Your task to perform on an android device: Open Yahoo.com Image 0: 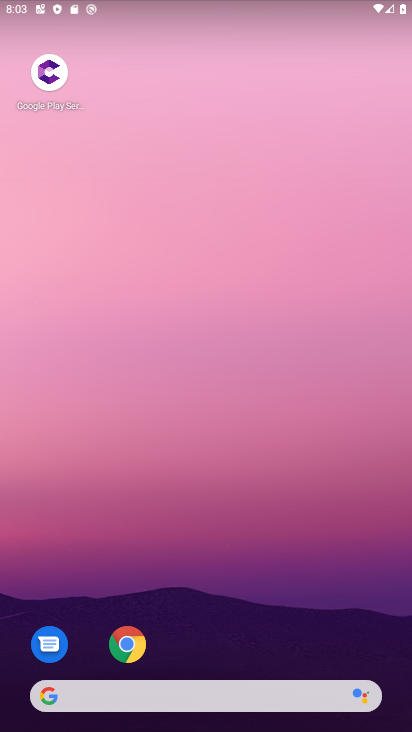
Step 0: drag from (227, 498) to (357, 80)
Your task to perform on an android device: Open Yahoo.com Image 1: 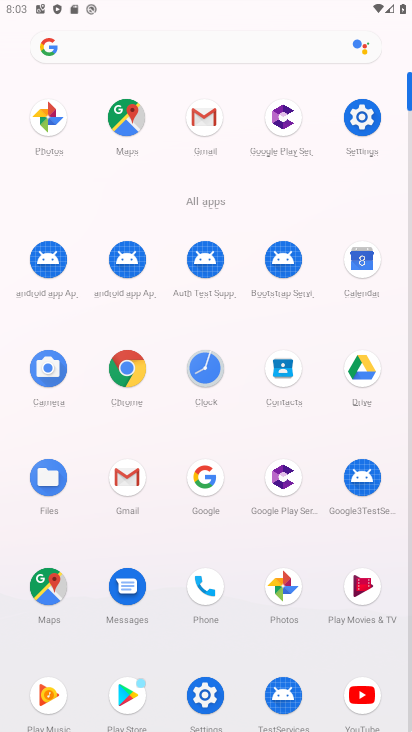
Step 1: click (116, 363)
Your task to perform on an android device: Open Yahoo.com Image 2: 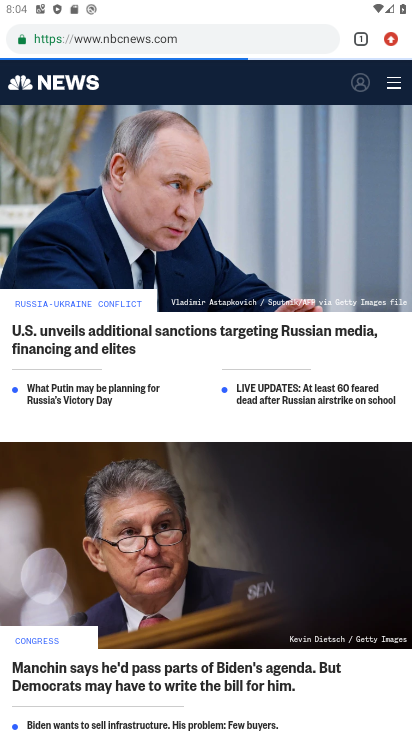
Step 2: click (131, 32)
Your task to perform on an android device: Open Yahoo.com Image 3: 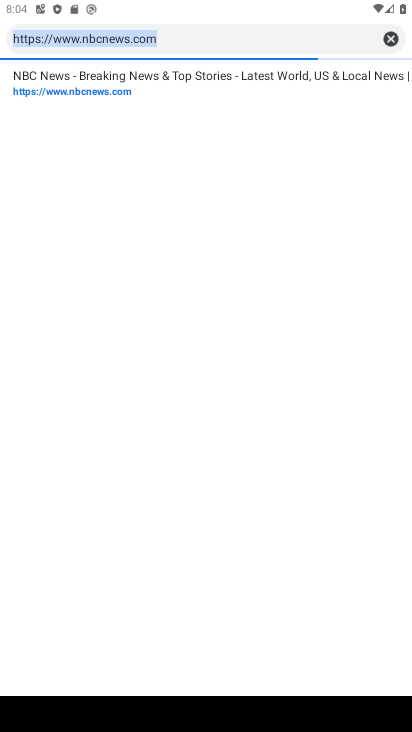
Step 3: click (383, 41)
Your task to perform on an android device: Open Yahoo.com Image 4: 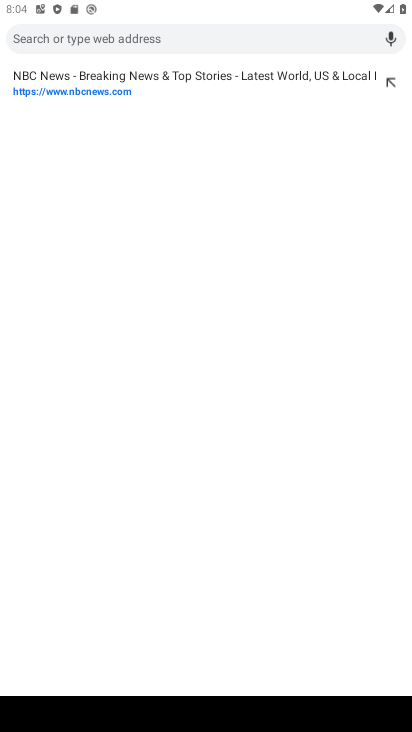
Step 4: type "yahoo.com"
Your task to perform on an android device: Open Yahoo.com Image 5: 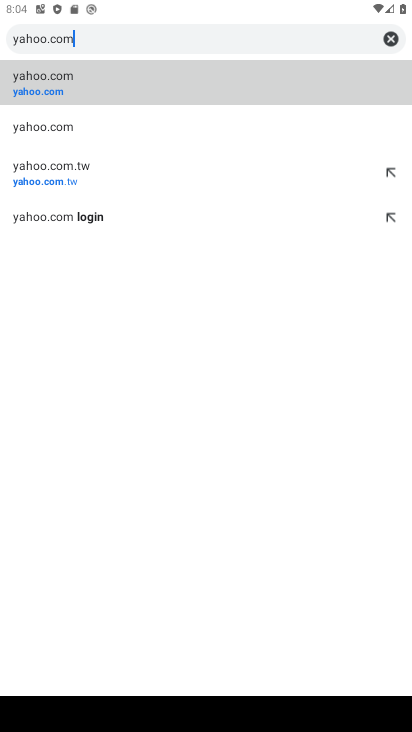
Step 5: click (34, 77)
Your task to perform on an android device: Open Yahoo.com Image 6: 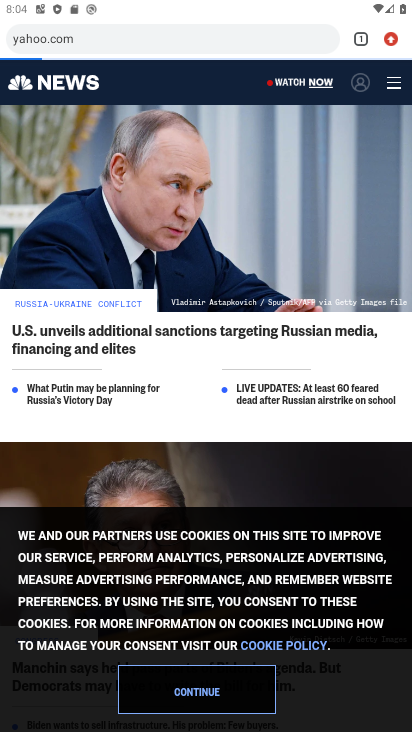
Step 6: task complete